Your task to perform on an android device: What's on my calendar tomorrow? Image 0: 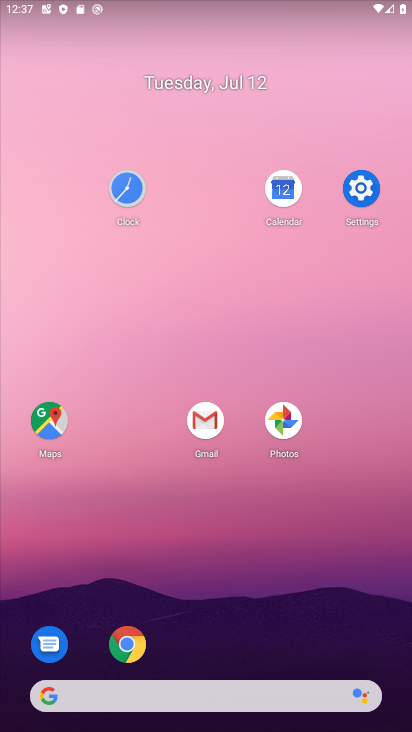
Step 0: click (279, 192)
Your task to perform on an android device: What's on my calendar tomorrow? Image 1: 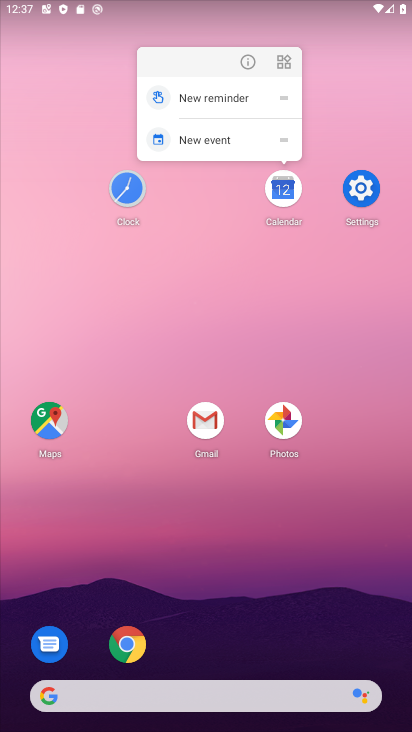
Step 1: click (279, 192)
Your task to perform on an android device: What's on my calendar tomorrow? Image 2: 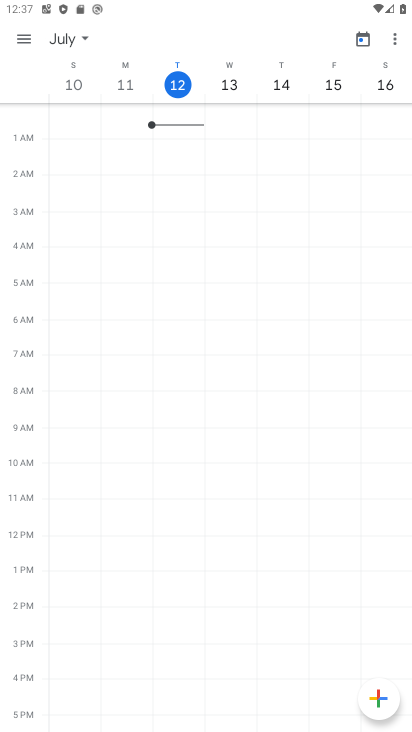
Step 2: click (237, 75)
Your task to perform on an android device: What's on my calendar tomorrow? Image 3: 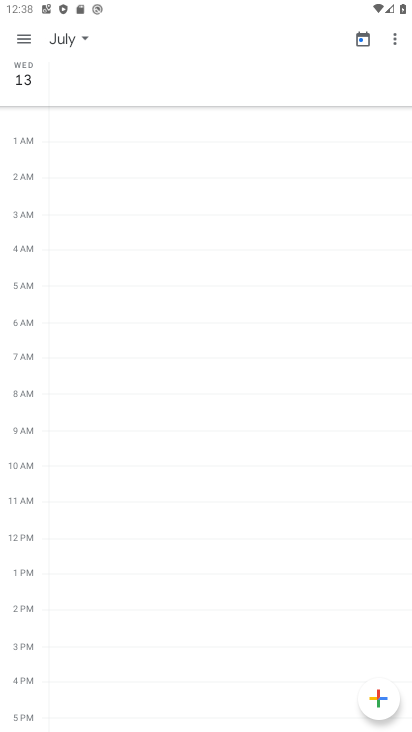
Step 3: task complete